Your task to perform on an android device: When is my next meeting? Image 0: 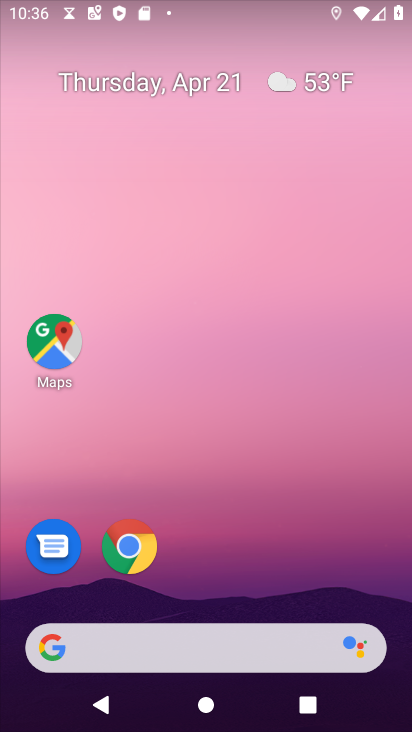
Step 0: drag from (262, 575) to (229, 92)
Your task to perform on an android device: When is my next meeting? Image 1: 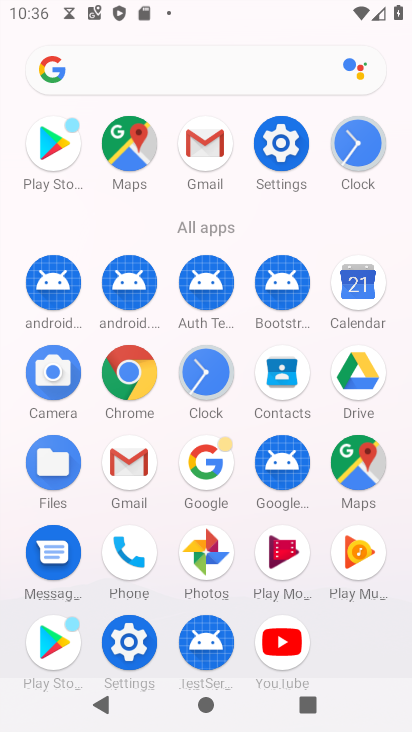
Step 1: click (361, 302)
Your task to perform on an android device: When is my next meeting? Image 2: 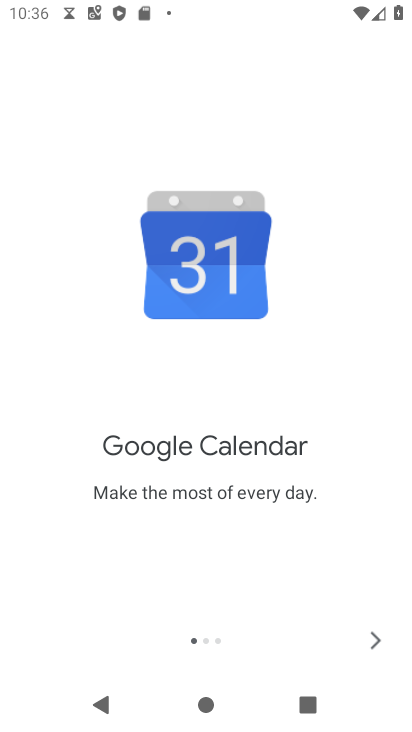
Step 2: click (378, 648)
Your task to perform on an android device: When is my next meeting? Image 3: 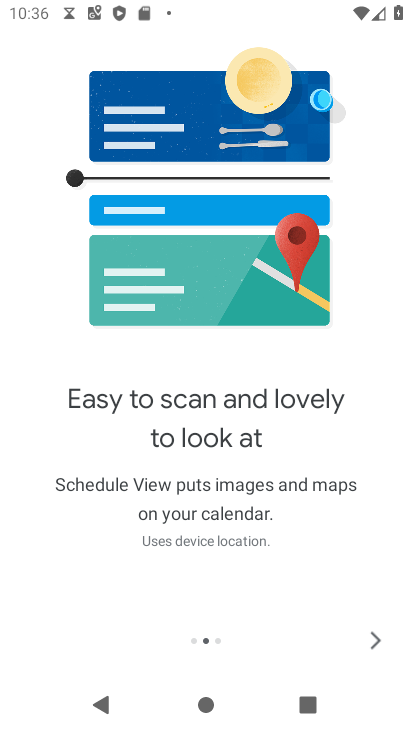
Step 3: click (378, 648)
Your task to perform on an android device: When is my next meeting? Image 4: 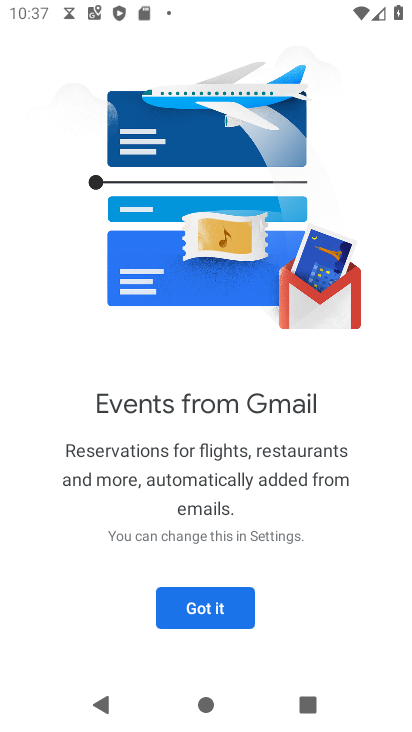
Step 4: click (193, 595)
Your task to perform on an android device: When is my next meeting? Image 5: 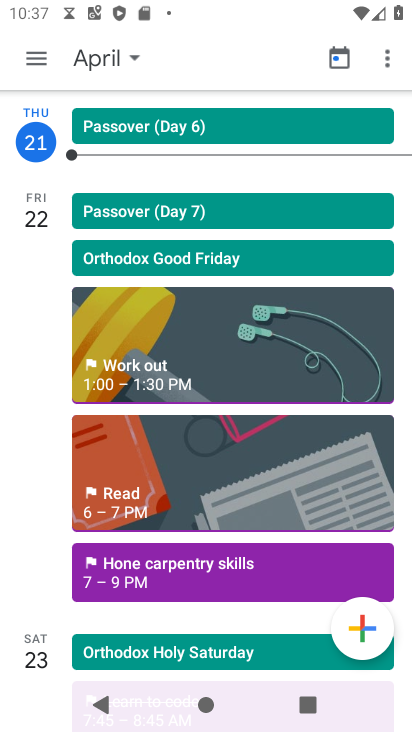
Step 5: click (92, 70)
Your task to perform on an android device: When is my next meeting? Image 6: 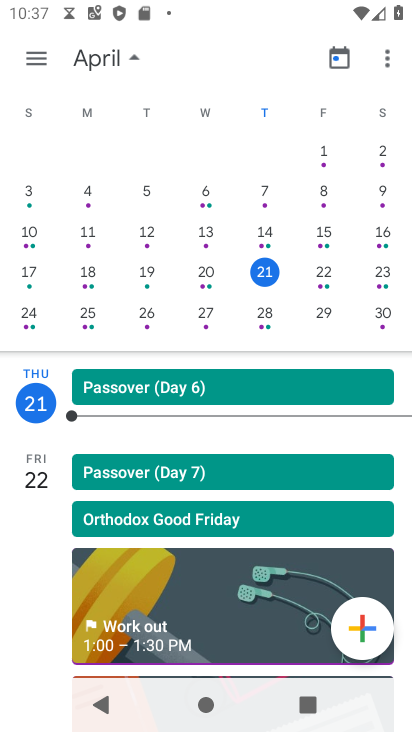
Step 6: click (378, 280)
Your task to perform on an android device: When is my next meeting? Image 7: 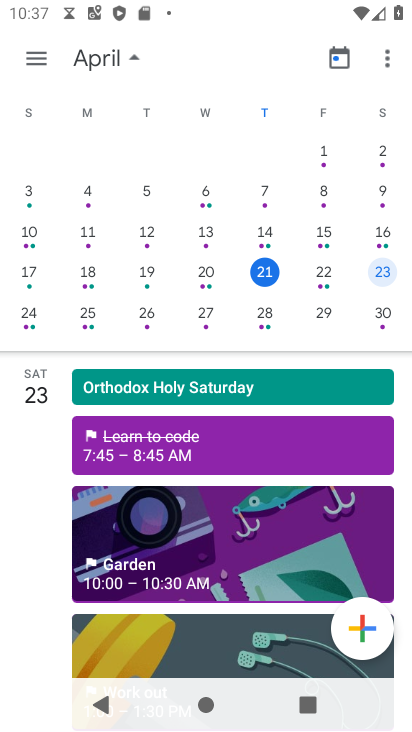
Step 7: task complete